Your task to perform on an android device: find which apps use the phone's location Image 0: 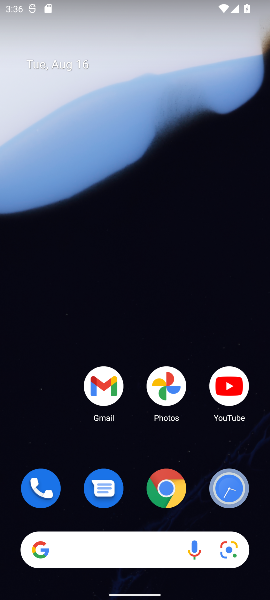
Step 0: drag from (153, 321) to (167, 32)
Your task to perform on an android device: find which apps use the phone's location Image 1: 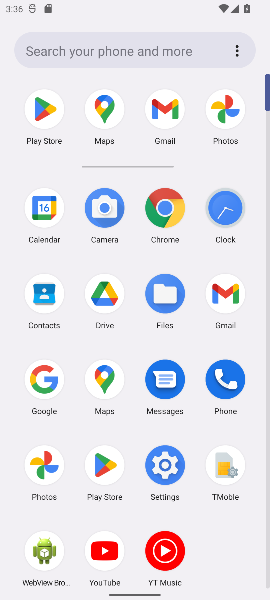
Step 1: click (167, 469)
Your task to perform on an android device: find which apps use the phone's location Image 2: 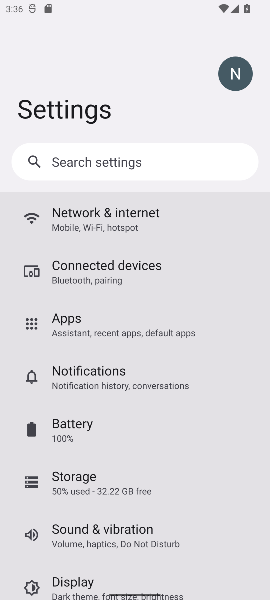
Step 2: task complete